Your task to perform on an android device: create a new album in the google photos Image 0: 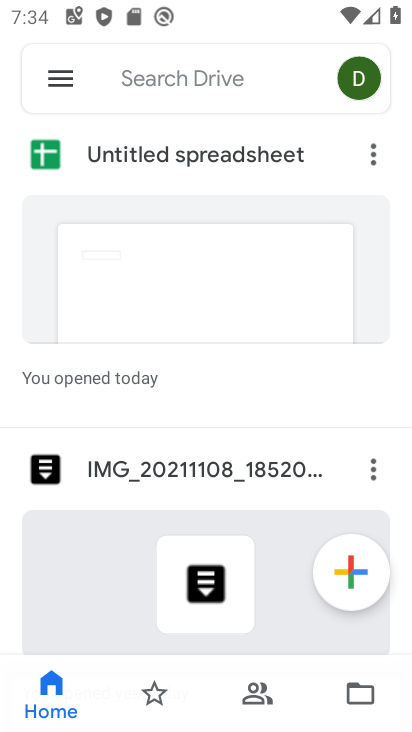
Step 0: press home button
Your task to perform on an android device: create a new album in the google photos Image 1: 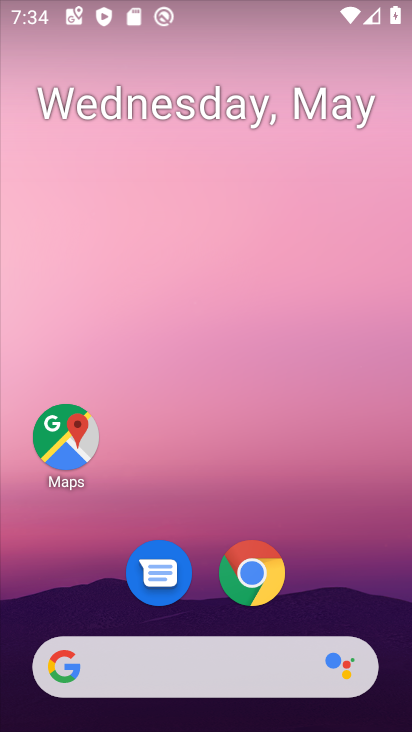
Step 1: drag from (325, 595) to (241, 104)
Your task to perform on an android device: create a new album in the google photos Image 2: 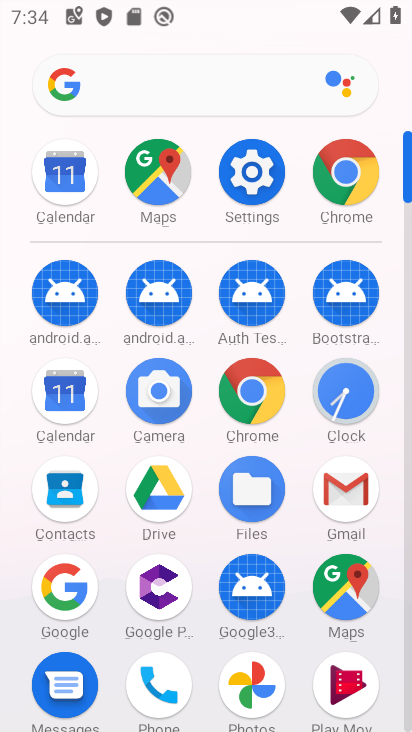
Step 2: click (261, 678)
Your task to perform on an android device: create a new album in the google photos Image 3: 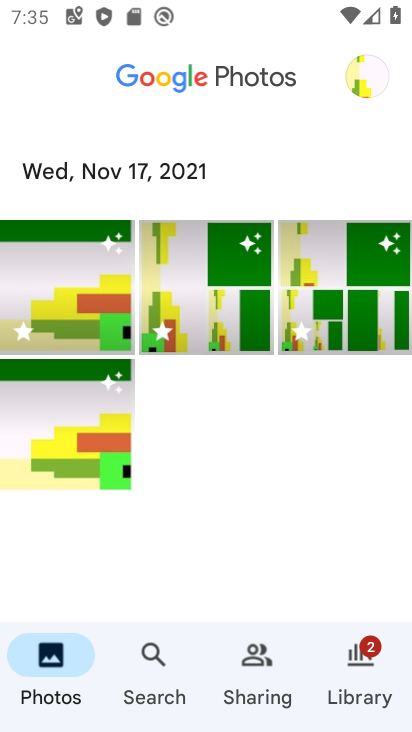
Step 3: click (342, 677)
Your task to perform on an android device: create a new album in the google photos Image 4: 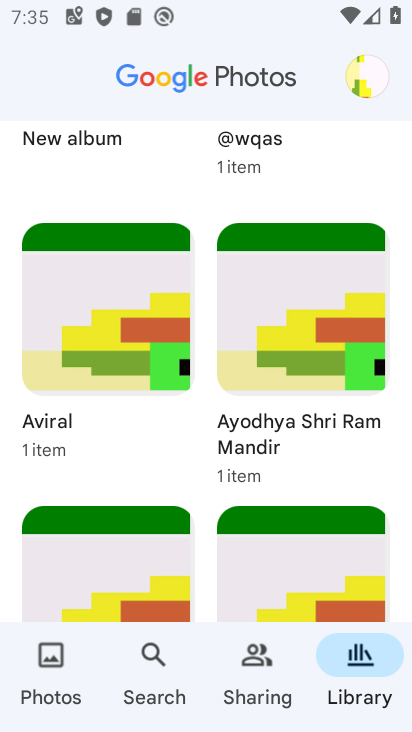
Step 4: click (89, 136)
Your task to perform on an android device: create a new album in the google photos Image 5: 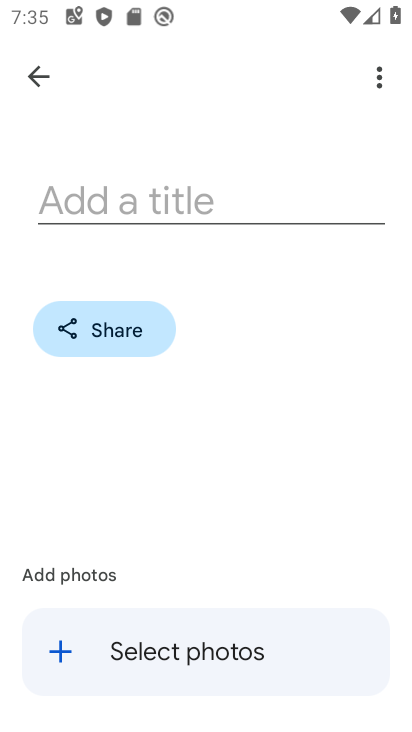
Step 5: click (151, 195)
Your task to perform on an android device: create a new album in the google photos Image 6: 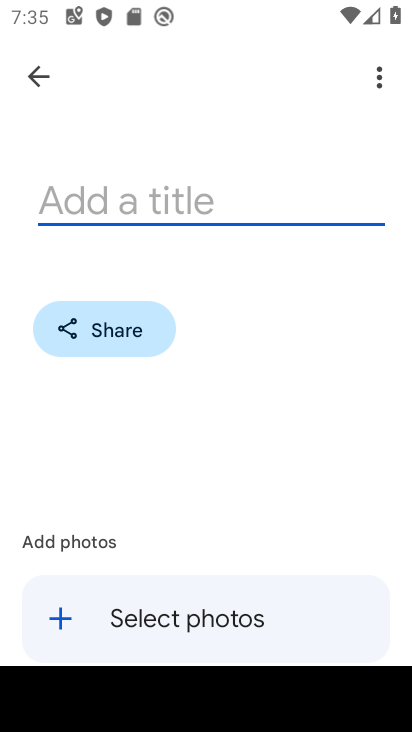
Step 6: type "Virdi"
Your task to perform on an android device: create a new album in the google photos Image 7: 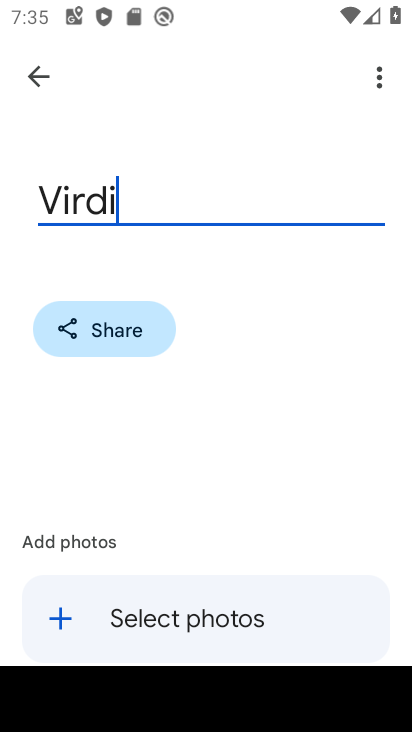
Step 7: click (193, 610)
Your task to perform on an android device: create a new album in the google photos Image 8: 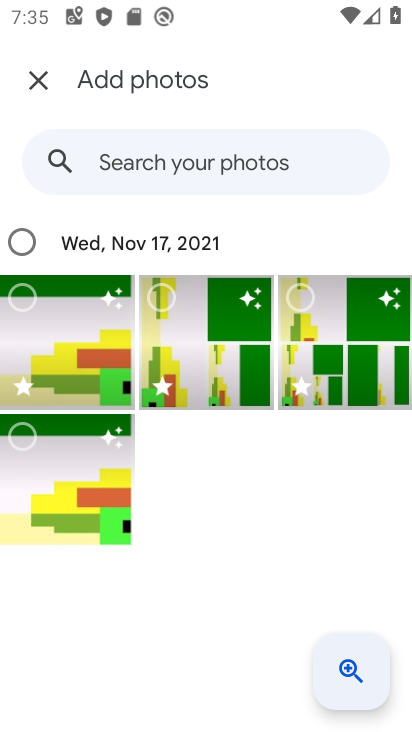
Step 8: click (155, 295)
Your task to perform on an android device: create a new album in the google photos Image 9: 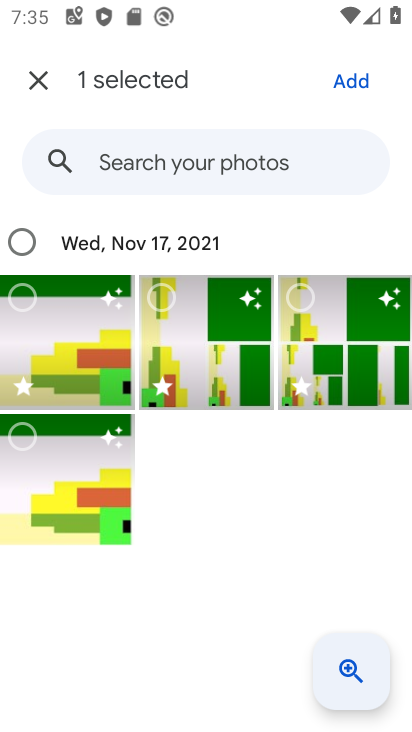
Step 9: click (27, 245)
Your task to perform on an android device: create a new album in the google photos Image 10: 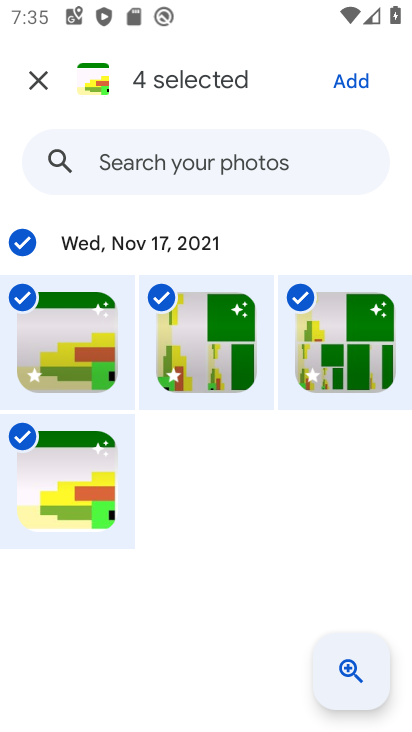
Step 10: click (352, 91)
Your task to perform on an android device: create a new album in the google photos Image 11: 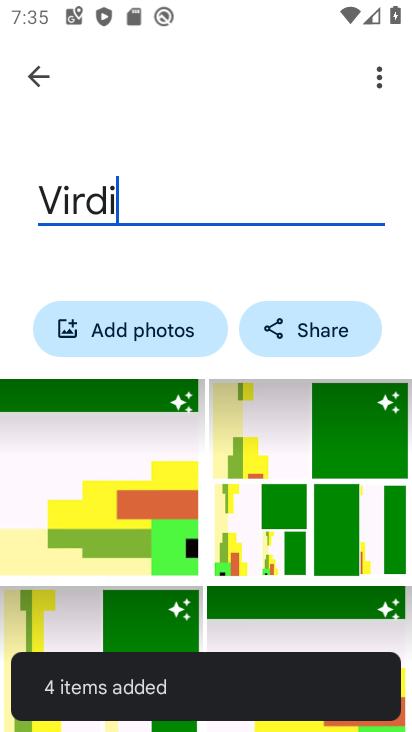
Step 11: task complete